Your task to perform on an android device: Go to eBay Image 0: 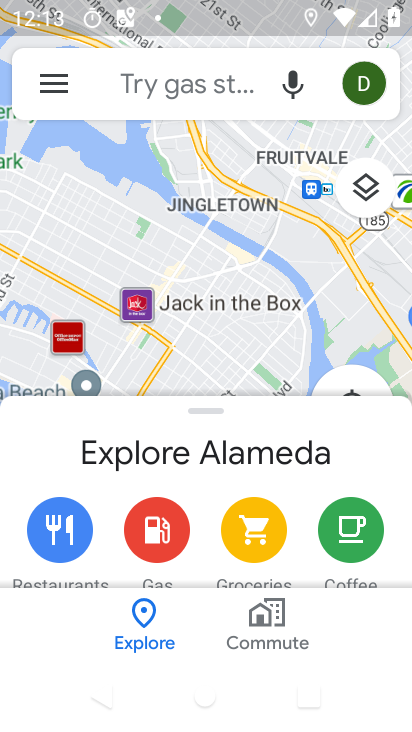
Step 0: press back button
Your task to perform on an android device: Go to eBay Image 1: 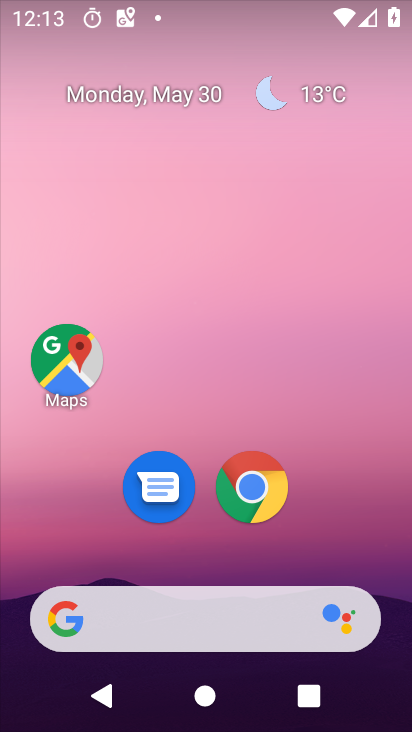
Step 1: click (249, 489)
Your task to perform on an android device: Go to eBay Image 2: 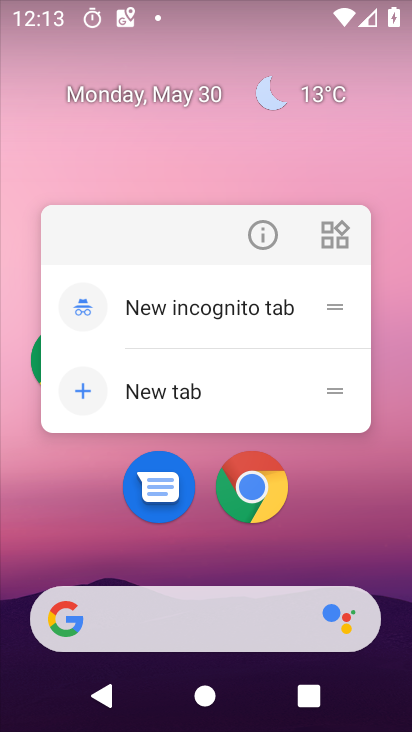
Step 2: click (247, 487)
Your task to perform on an android device: Go to eBay Image 3: 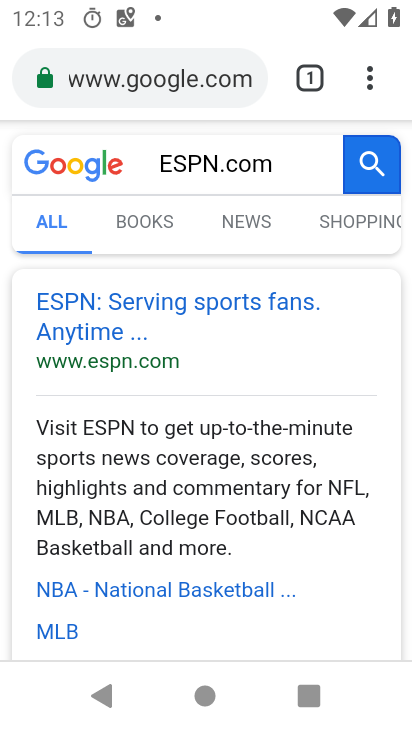
Step 3: click (242, 79)
Your task to perform on an android device: Go to eBay Image 4: 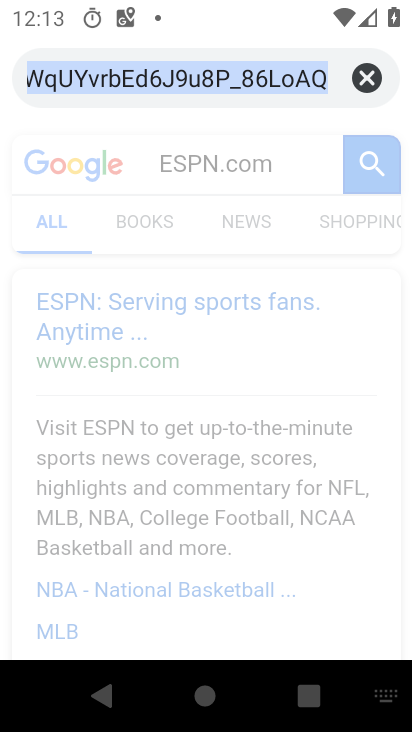
Step 4: click (374, 82)
Your task to perform on an android device: Go to eBay Image 5: 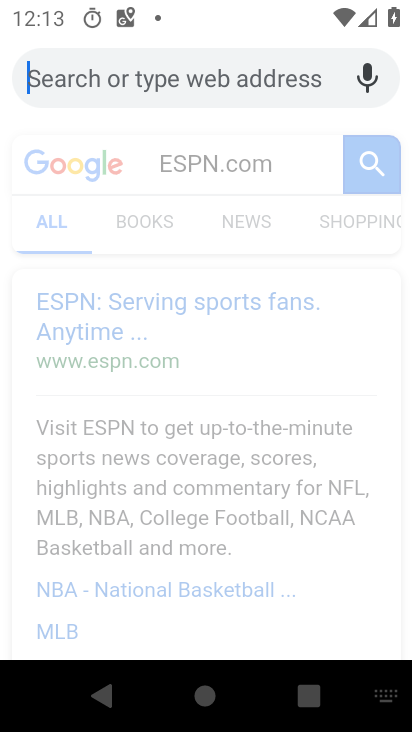
Step 5: type " eBay"
Your task to perform on an android device: Go to eBay Image 6: 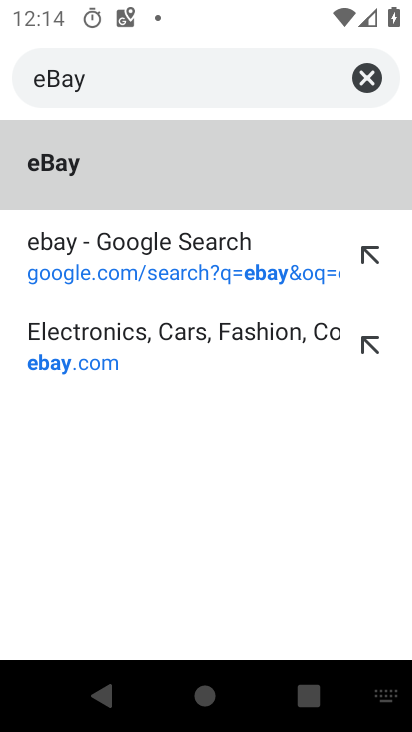
Step 6: click (21, 180)
Your task to perform on an android device: Go to eBay Image 7: 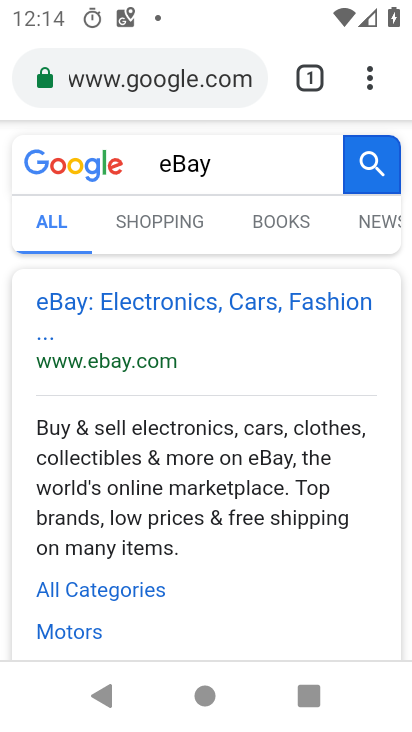
Step 7: task complete